Your task to perform on an android device: Go to Wikipedia Image 0: 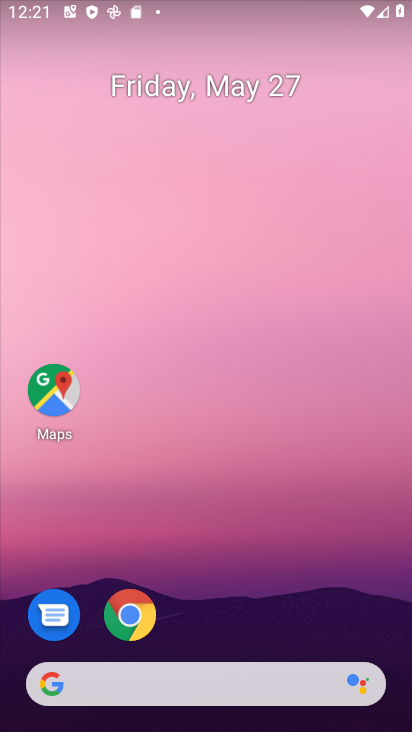
Step 0: drag from (207, 680) to (201, 30)
Your task to perform on an android device: Go to Wikipedia Image 1: 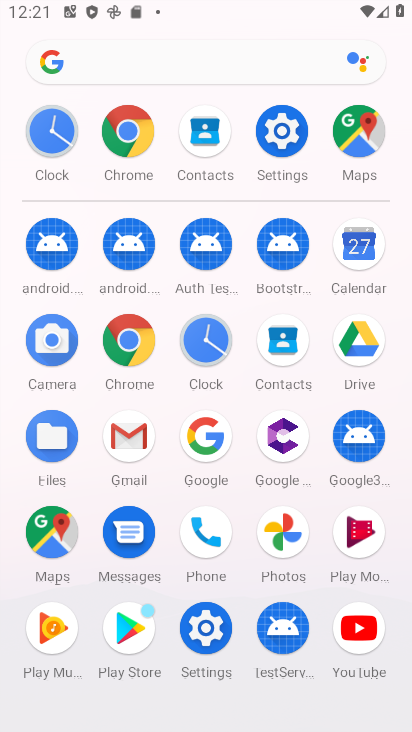
Step 1: click (138, 337)
Your task to perform on an android device: Go to Wikipedia Image 2: 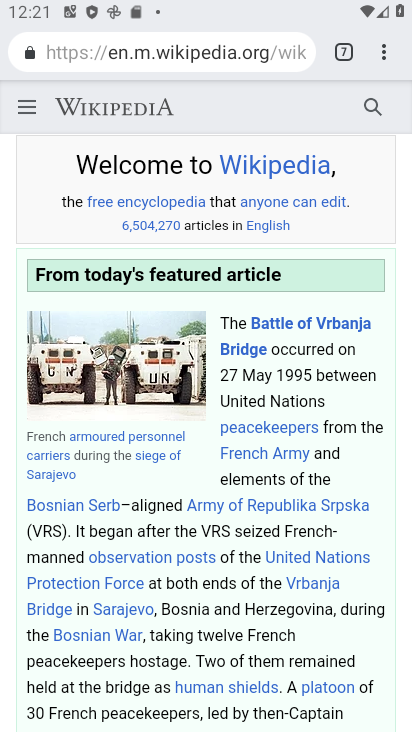
Step 2: task complete